Your task to perform on an android device: Open eBay Image 0: 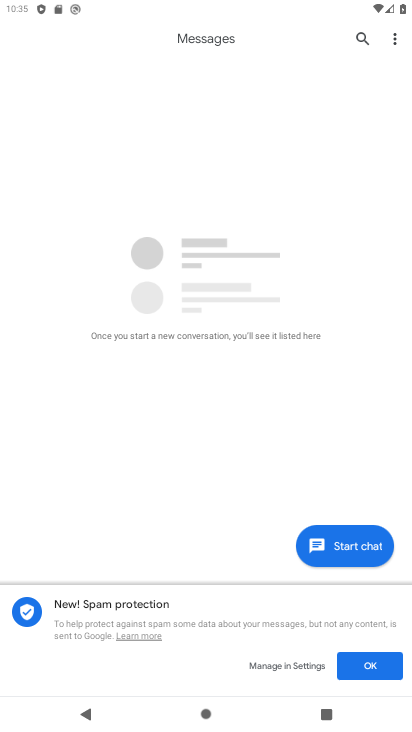
Step 0: press home button
Your task to perform on an android device: Open eBay Image 1: 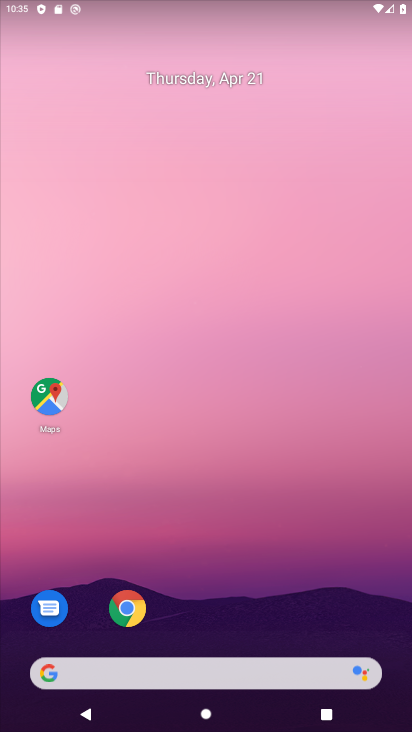
Step 1: click (127, 610)
Your task to perform on an android device: Open eBay Image 2: 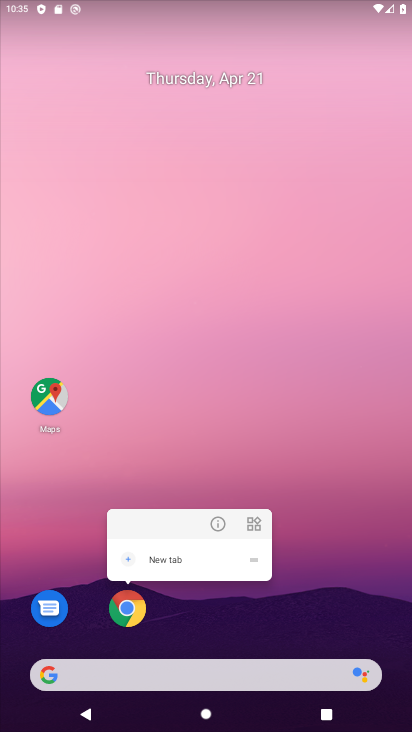
Step 2: click (213, 520)
Your task to perform on an android device: Open eBay Image 3: 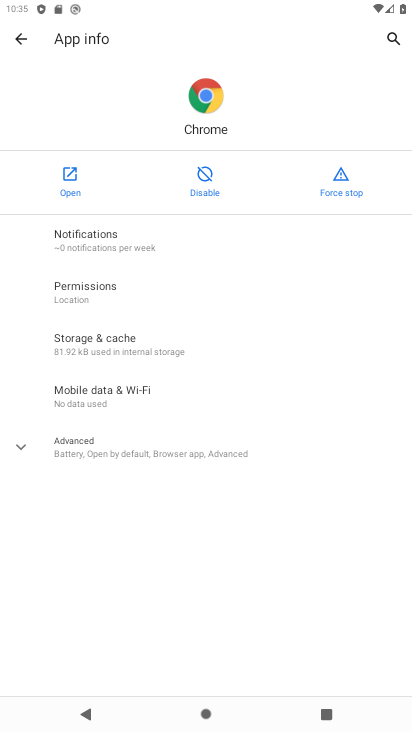
Step 3: click (65, 174)
Your task to perform on an android device: Open eBay Image 4: 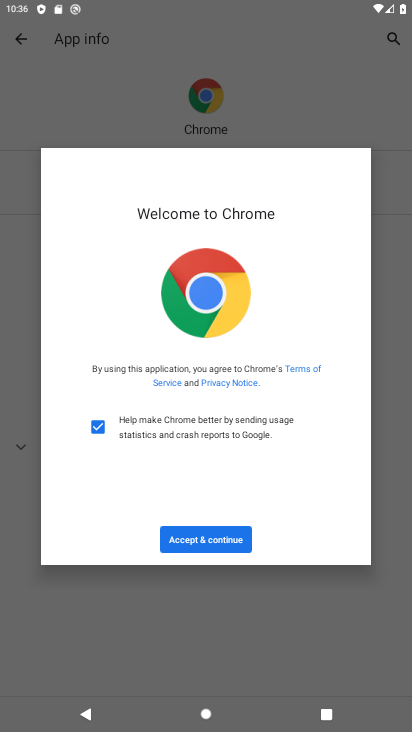
Step 4: click (247, 541)
Your task to perform on an android device: Open eBay Image 5: 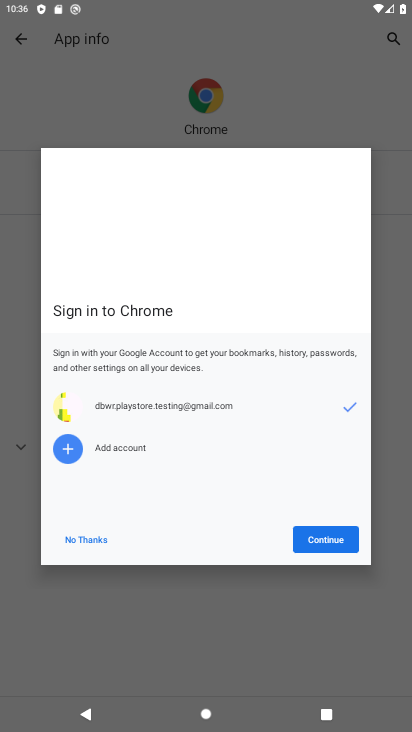
Step 5: click (330, 534)
Your task to perform on an android device: Open eBay Image 6: 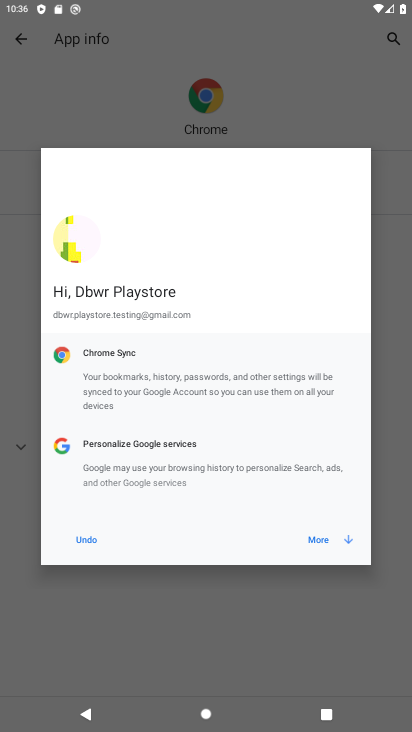
Step 6: click (337, 538)
Your task to perform on an android device: Open eBay Image 7: 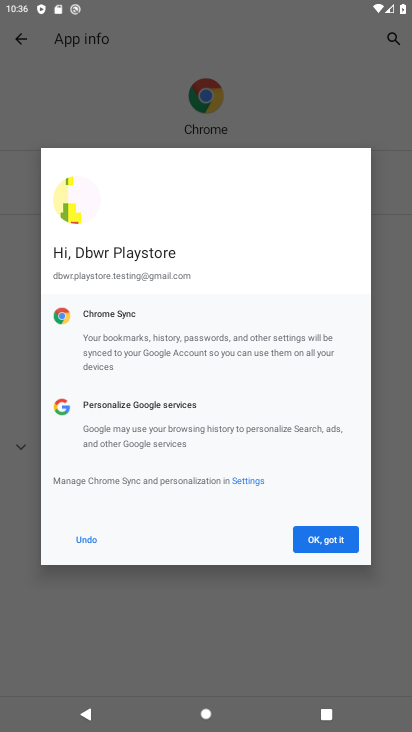
Step 7: click (331, 537)
Your task to perform on an android device: Open eBay Image 8: 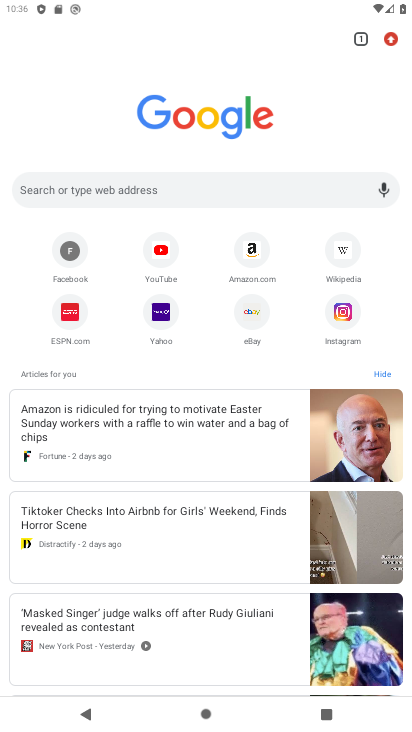
Step 8: click (127, 177)
Your task to perform on an android device: Open eBay Image 9: 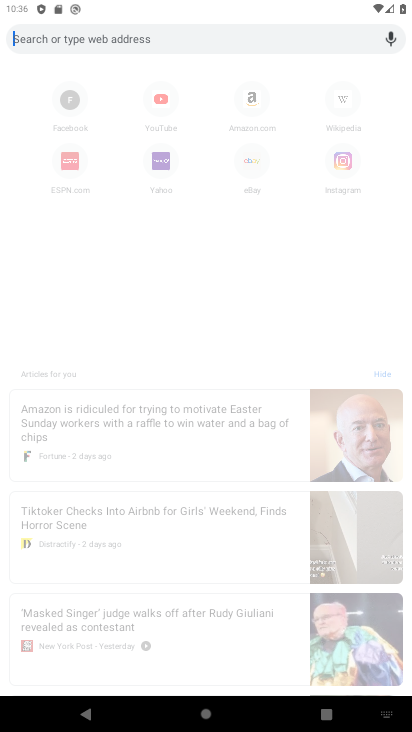
Step 9: type "ebay"
Your task to perform on an android device: Open eBay Image 10: 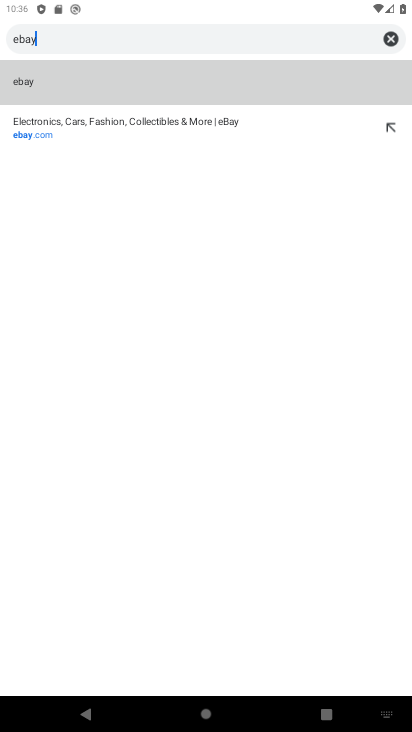
Step 10: click (134, 83)
Your task to perform on an android device: Open eBay Image 11: 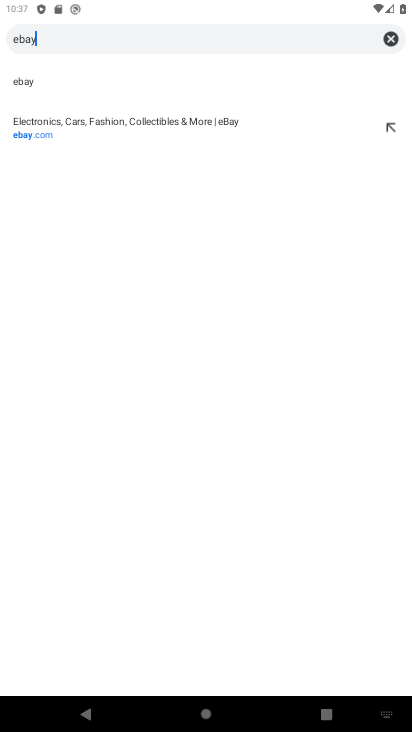
Step 11: click (51, 80)
Your task to perform on an android device: Open eBay Image 12: 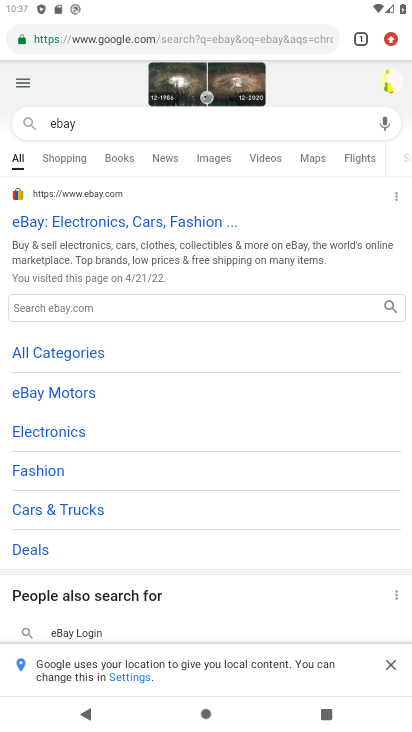
Step 12: task complete